Your task to perform on an android device: check out phone information Image 0: 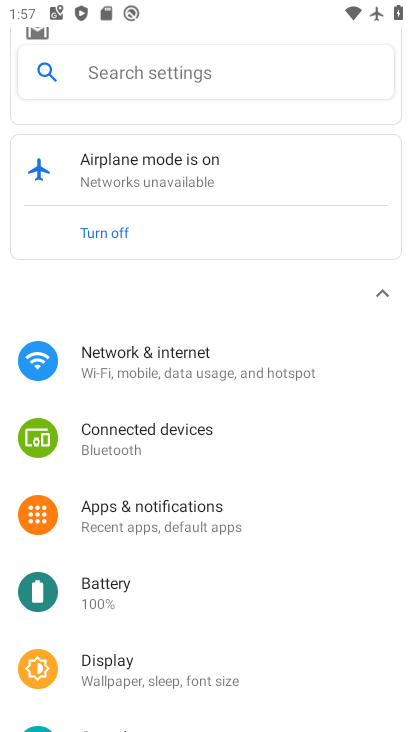
Step 0: drag from (313, 635) to (195, 49)
Your task to perform on an android device: check out phone information Image 1: 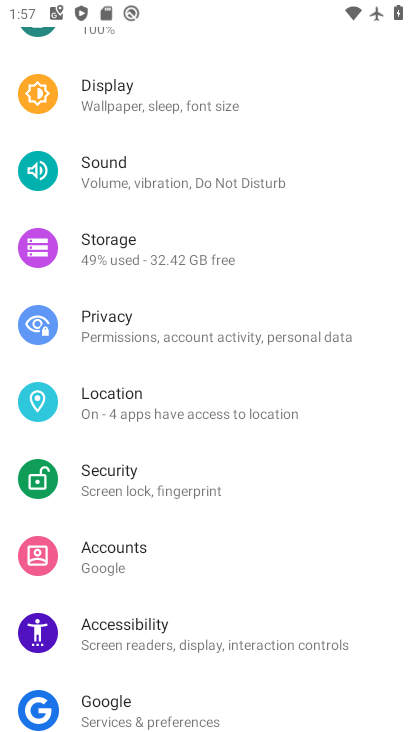
Step 1: drag from (136, 655) to (69, 176)
Your task to perform on an android device: check out phone information Image 2: 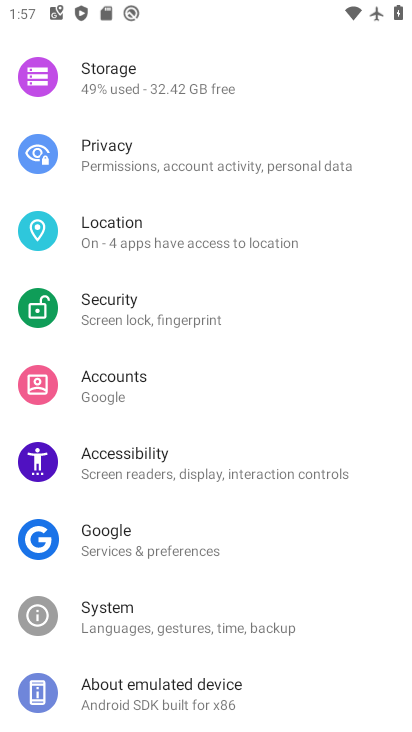
Step 2: click (100, 701)
Your task to perform on an android device: check out phone information Image 3: 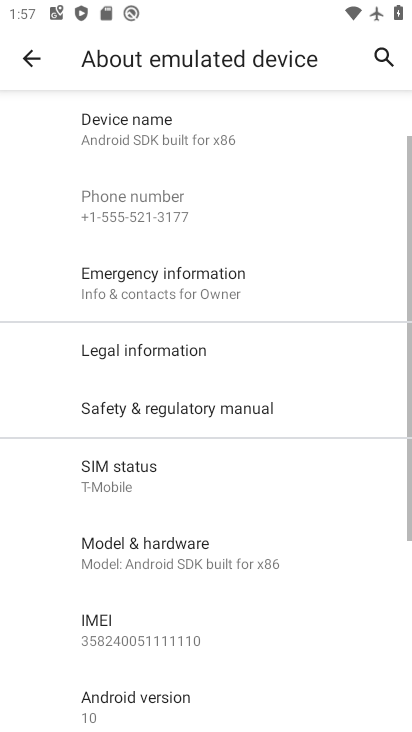
Step 3: task complete